Your task to perform on an android device: change notifications settings Image 0: 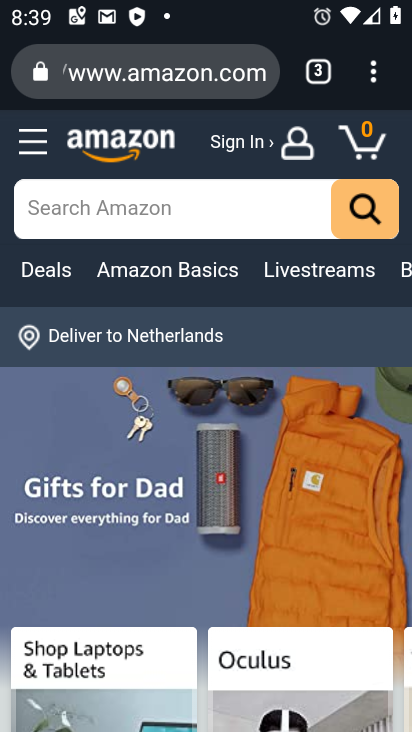
Step 0: press home button
Your task to perform on an android device: change notifications settings Image 1: 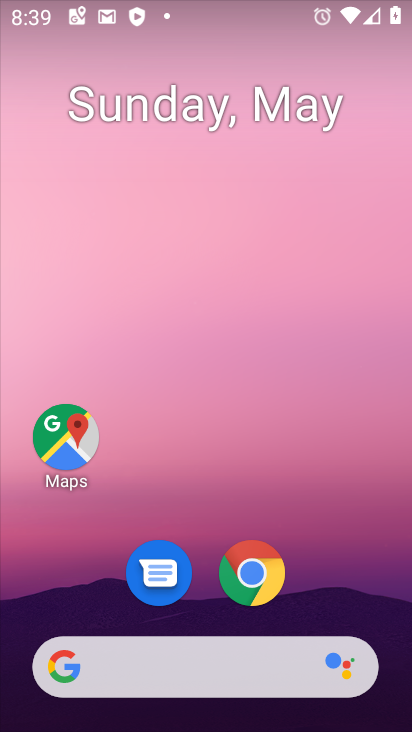
Step 1: drag from (264, 520) to (260, 1)
Your task to perform on an android device: change notifications settings Image 2: 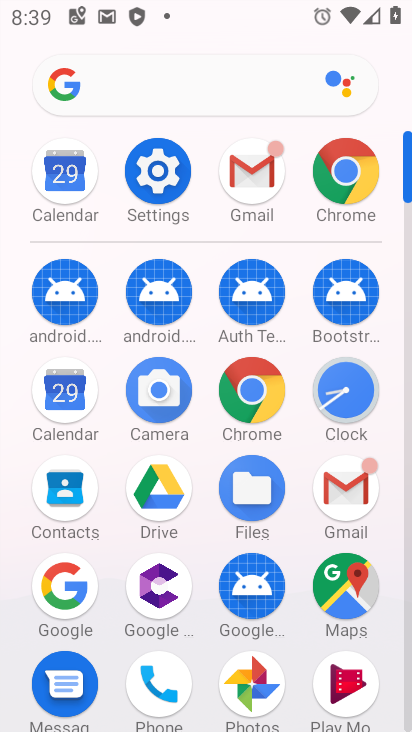
Step 2: click (162, 156)
Your task to perform on an android device: change notifications settings Image 3: 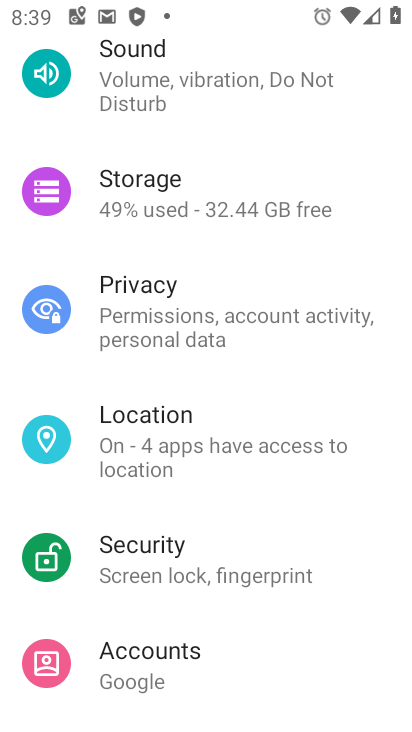
Step 3: drag from (268, 241) to (303, 682)
Your task to perform on an android device: change notifications settings Image 4: 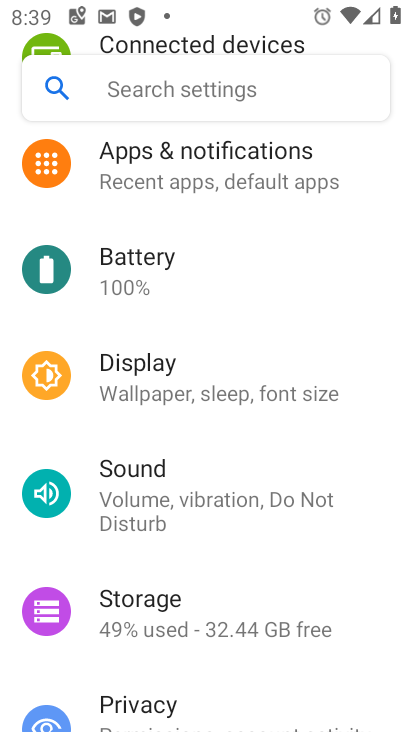
Step 4: click (264, 162)
Your task to perform on an android device: change notifications settings Image 5: 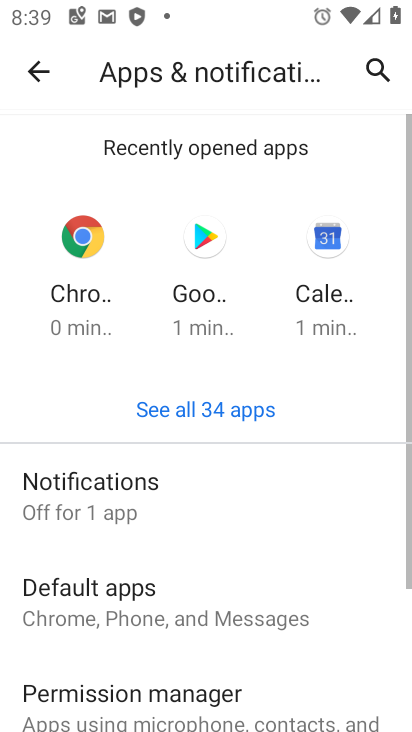
Step 5: click (137, 482)
Your task to perform on an android device: change notifications settings Image 6: 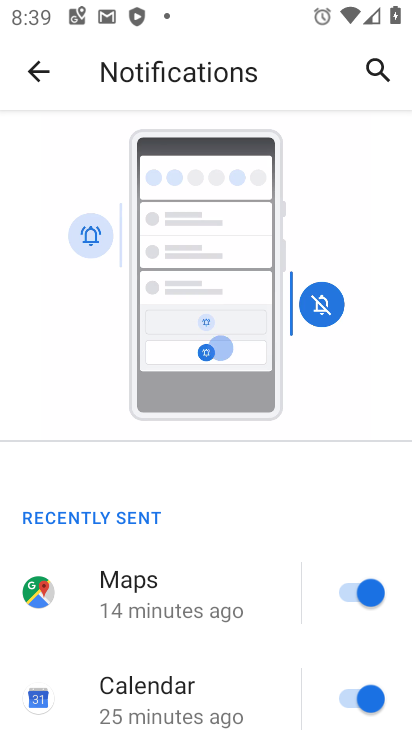
Step 6: drag from (253, 542) to (311, 78)
Your task to perform on an android device: change notifications settings Image 7: 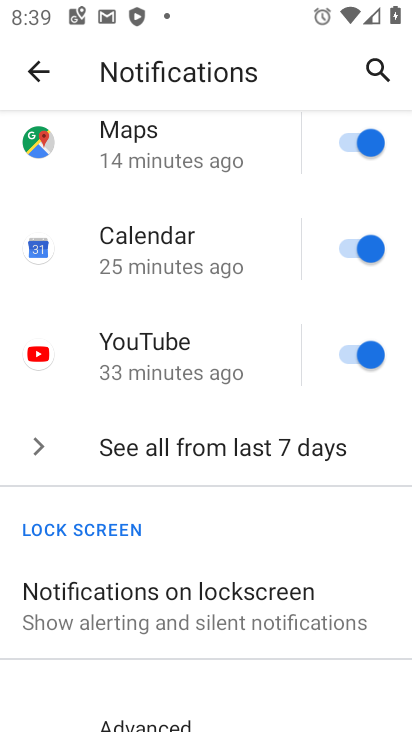
Step 7: click (283, 444)
Your task to perform on an android device: change notifications settings Image 8: 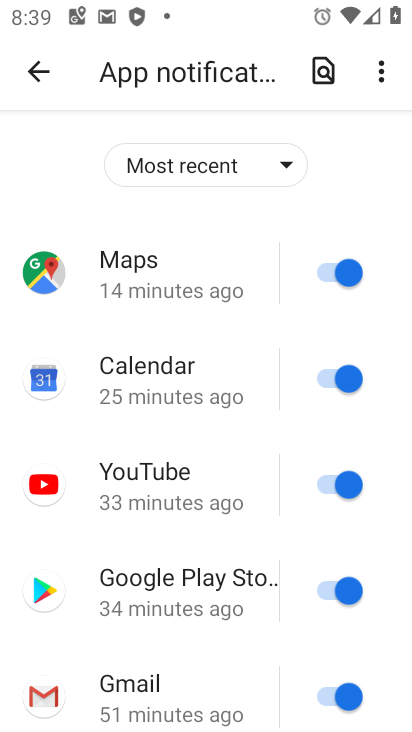
Step 8: click (338, 270)
Your task to perform on an android device: change notifications settings Image 9: 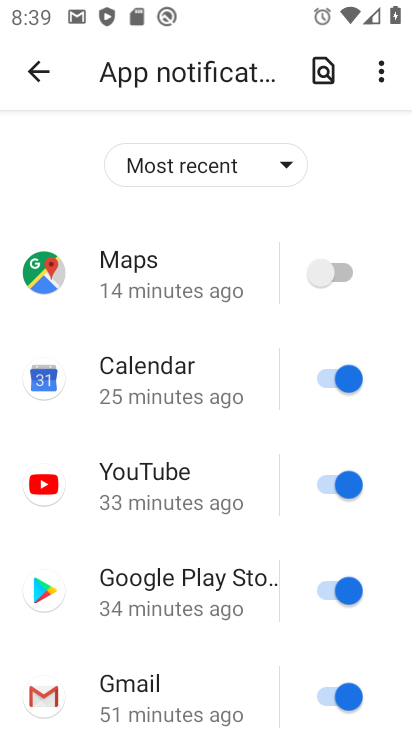
Step 9: click (343, 370)
Your task to perform on an android device: change notifications settings Image 10: 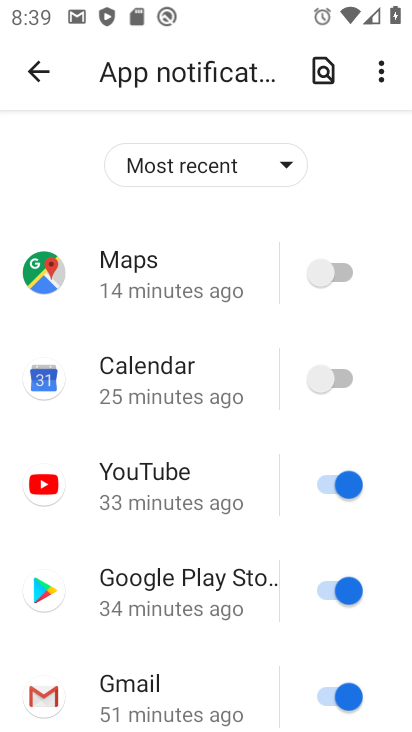
Step 10: click (328, 486)
Your task to perform on an android device: change notifications settings Image 11: 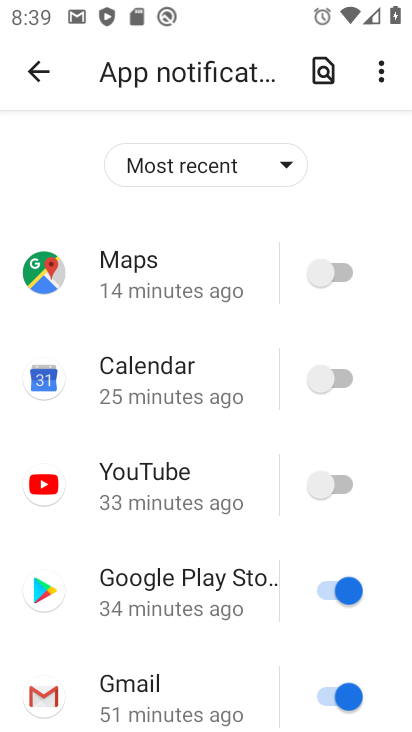
Step 11: click (340, 600)
Your task to perform on an android device: change notifications settings Image 12: 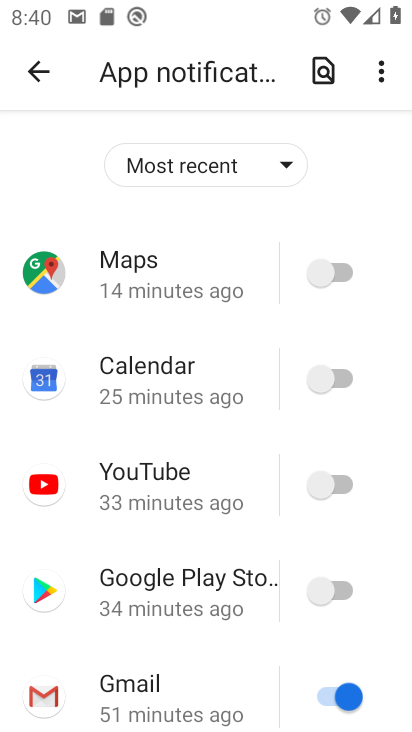
Step 12: click (332, 682)
Your task to perform on an android device: change notifications settings Image 13: 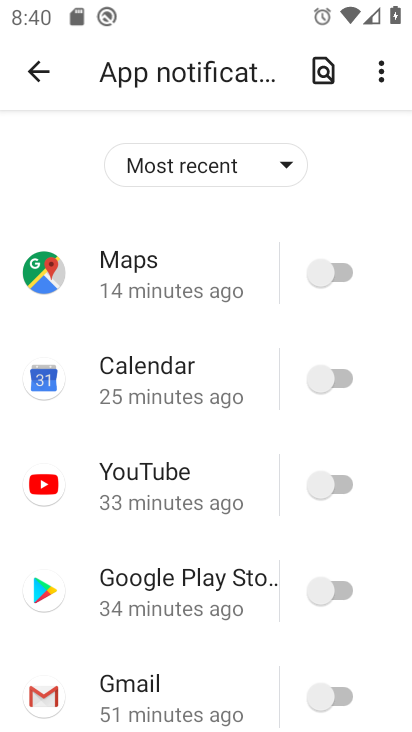
Step 13: drag from (230, 630) to (221, 51)
Your task to perform on an android device: change notifications settings Image 14: 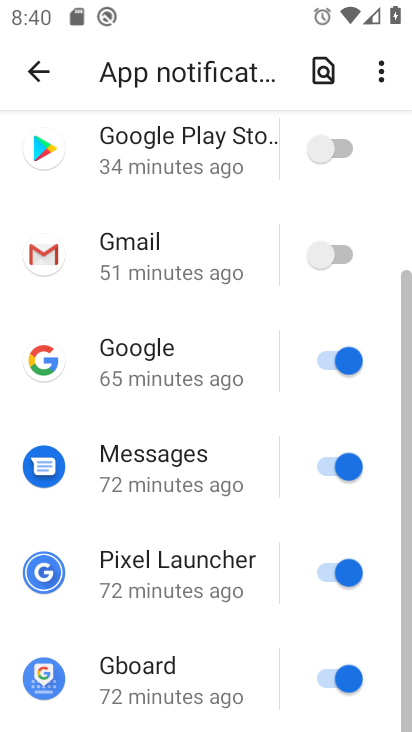
Step 14: drag from (216, 449) to (214, 283)
Your task to perform on an android device: change notifications settings Image 15: 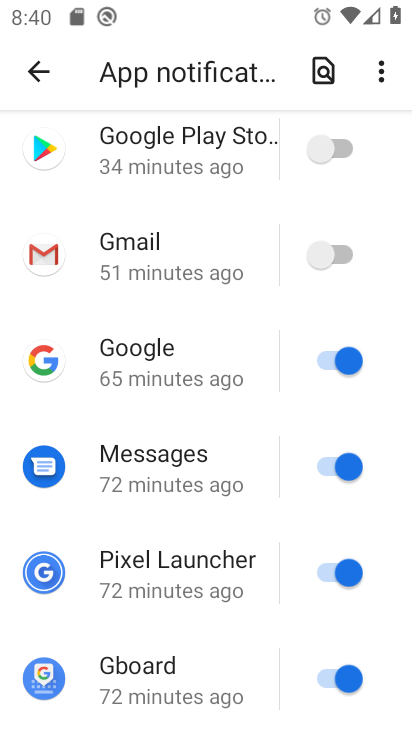
Step 15: click (327, 357)
Your task to perform on an android device: change notifications settings Image 16: 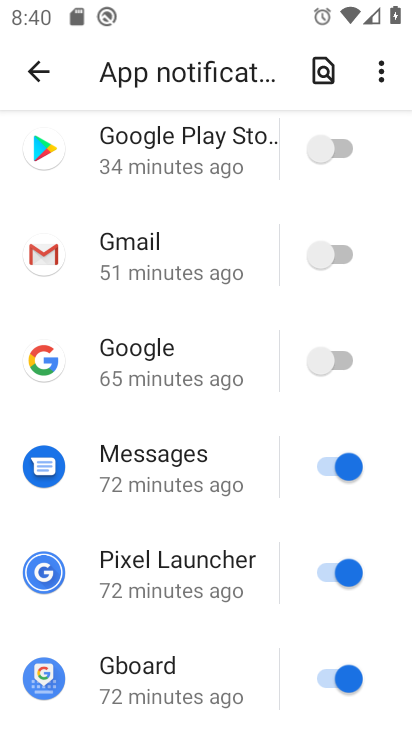
Step 16: click (339, 464)
Your task to perform on an android device: change notifications settings Image 17: 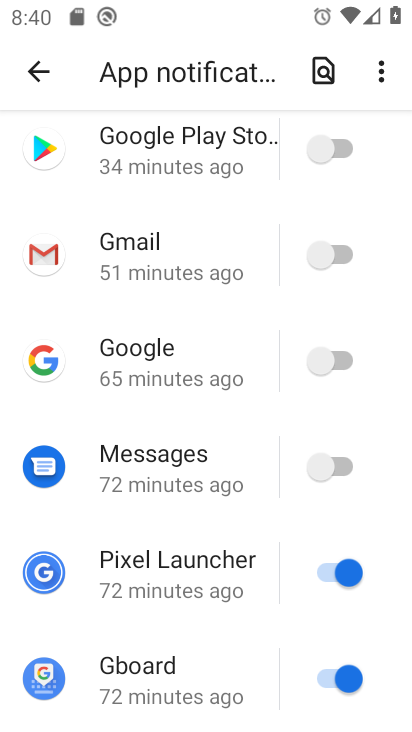
Step 17: click (330, 575)
Your task to perform on an android device: change notifications settings Image 18: 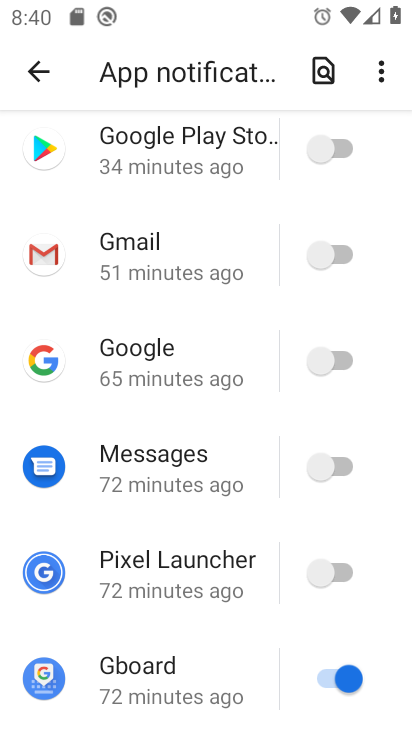
Step 18: click (331, 683)
Your task to perform on an android device: change notifications settings Image 19: 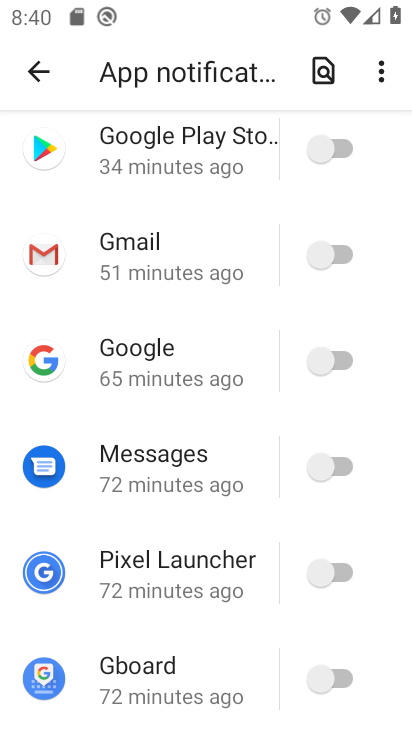
Step 19: task complete